Your task to perform on an android device: turn off translation in the chrome app Image 0: 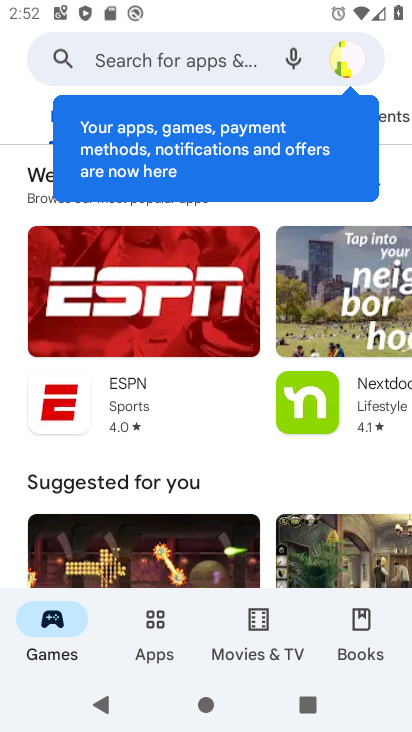
Step 0: press home button
Your task to perform on an android device: turn off translation in the chrome app Image 1: 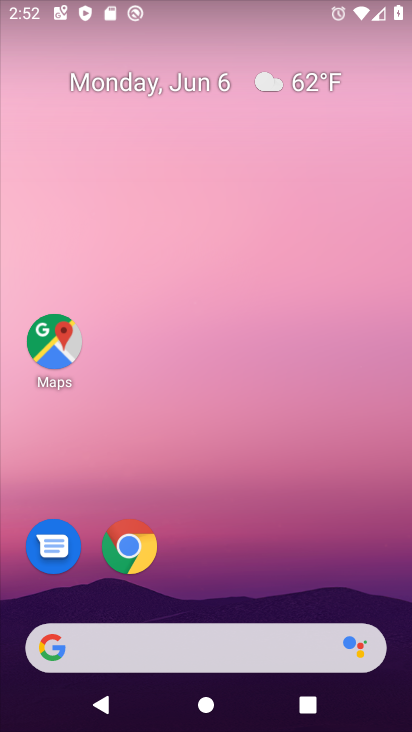
Step 1: click (120, 536)
Your task to perform on an android device: turn off translation in the chrome app Image 2: 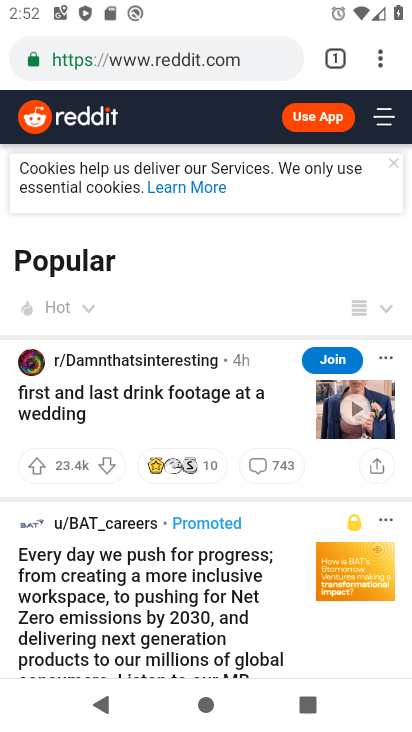
Step 2: click (377, 51)
Your task to perform on an android device: turn off translation in the chrome app Image 3: 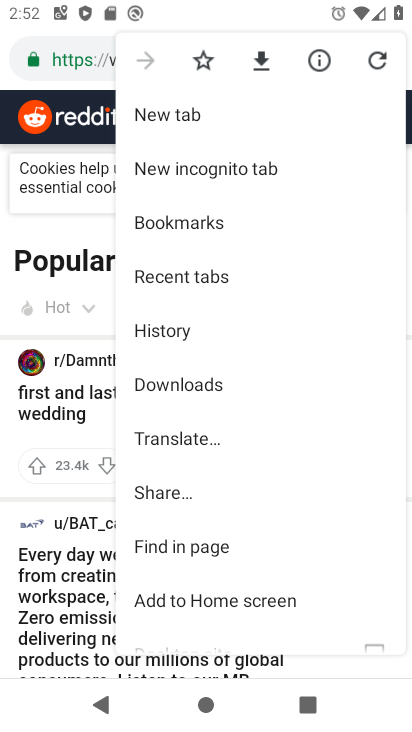
Step 3: drag from (239, 566) to (262, 291)
Your task to perform on an android device: turn off translation in the chrome app Image 4: 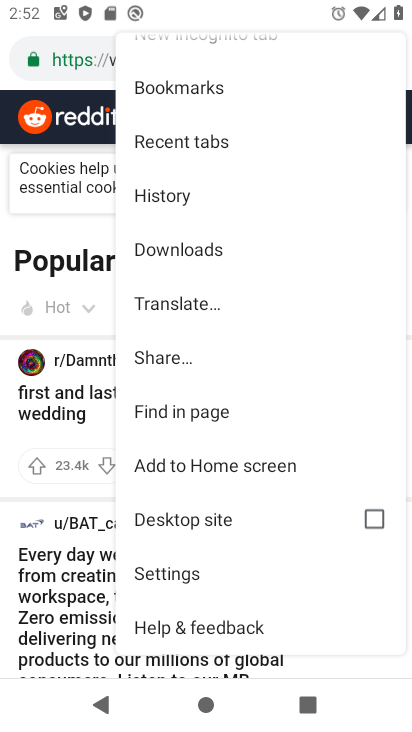
Step 4: click (182, 587)
Your task to perform on an android device: turn off translation in the chrome app Image 5: 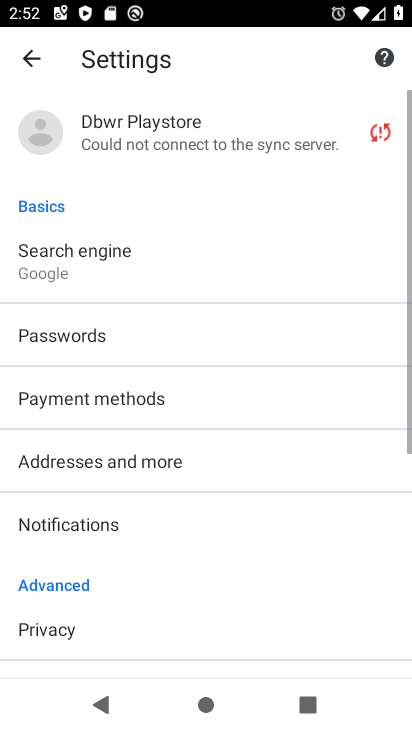
Step 5: drag from (193, 568) to (209, 230)
Your task to perform on an android device: turn off translation in the chrome app Image 6: 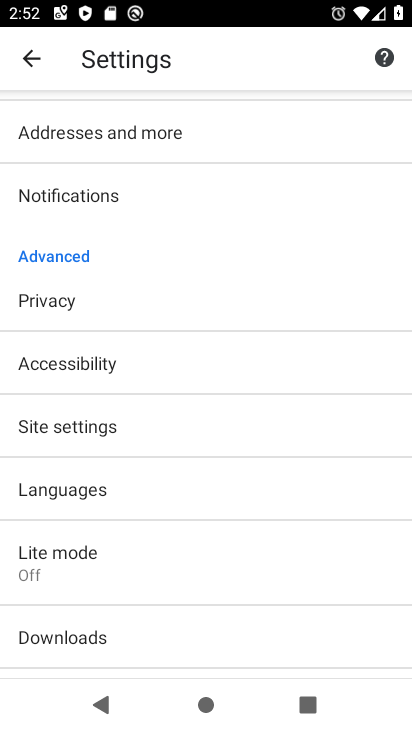
Step 6: click (119, 497)
Your task to perform on an android device: turn off translation in the chrome app Image 7: 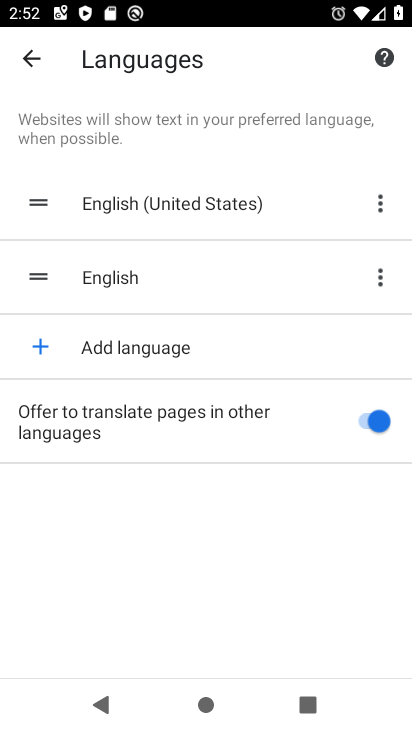
Step 7: click (367, 415)
Your task to perform on an android device: turn off translation in the chrome app Image 8: 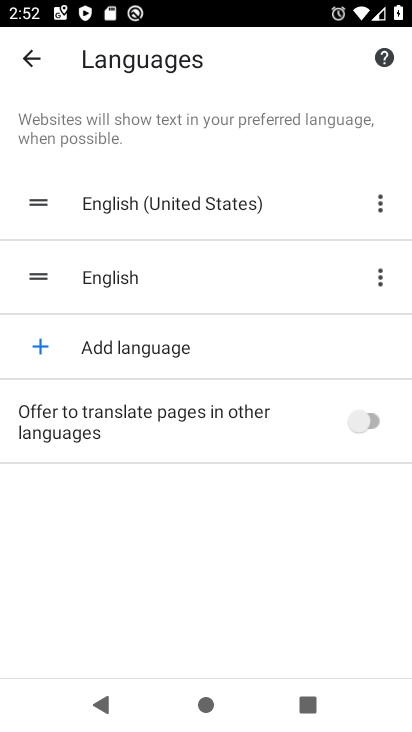
Step 8: task complete